Your task to perform on an android device: toggle show notifications on the lock screen Image 0: 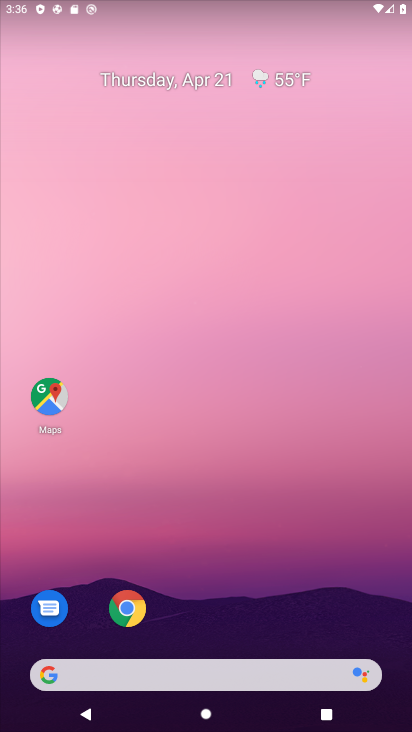
Step 0: drag from (222, 534) to (229, 155)
Your task to perform on an android device: toggle show notifications on the lock screen Image 1: 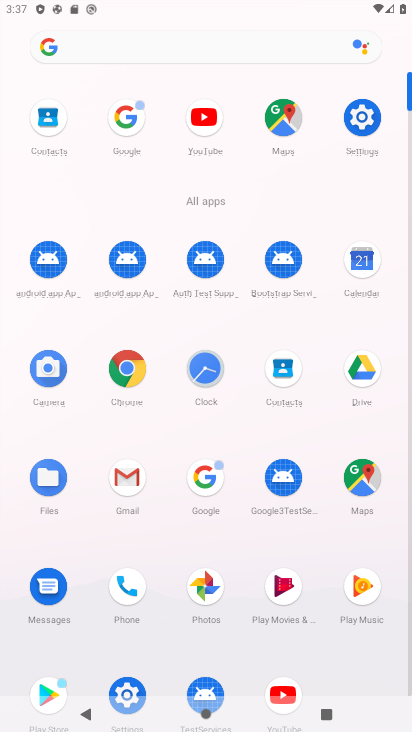
Step 1: click (363, 126)
Your task to perform on an android device: toggle show notifications on the lock screen Image 2: 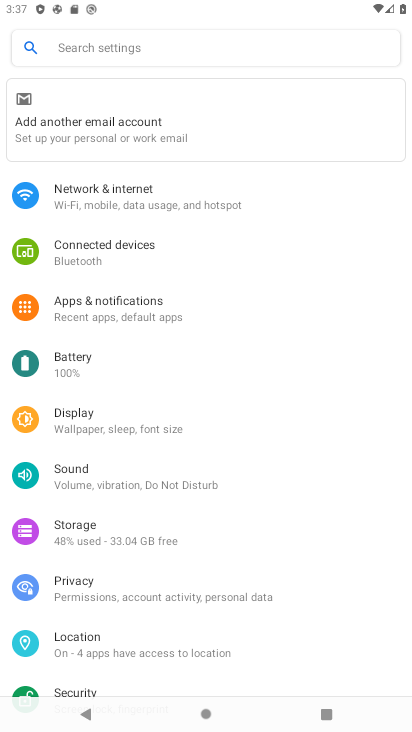
Step 2: click (177, 313)
Your task to perform on an android device: toggle show notifications on the lock screen Image 3: 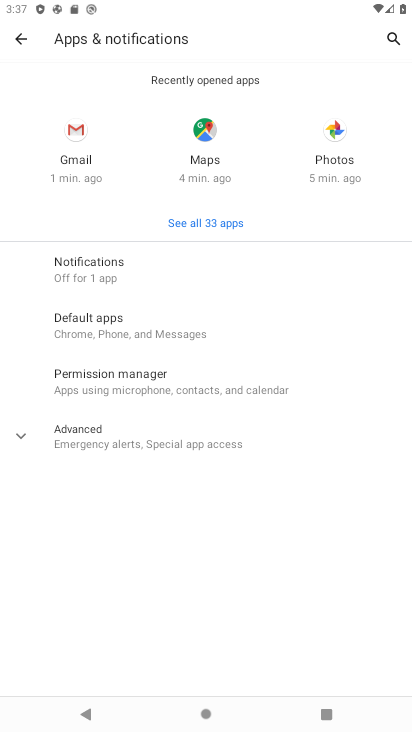
Step 3: click (165, 287)
Your task to perform on an android device: toggle show notifications on the lock screen Image 4: 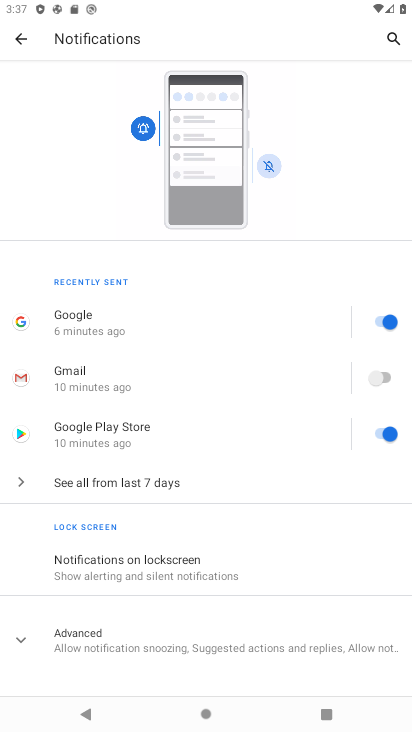
Step 4: click (252, 559)
Your task to perform on an android device: toggle show notifications on the lock screen Image 5: 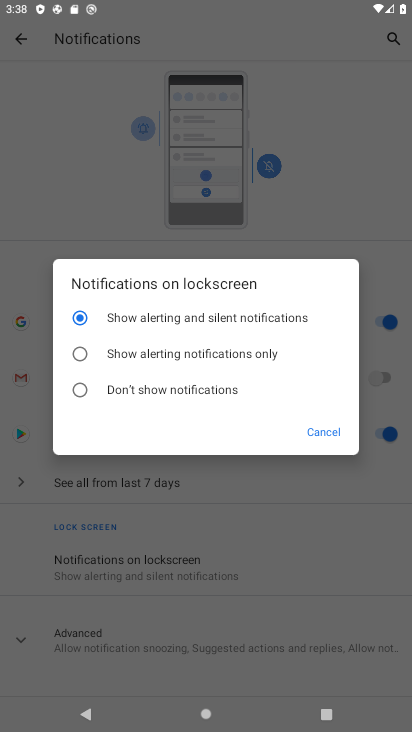
Step 5: click (97, 398)
Your task to perform on an android device: toggle show notifications on the lock screen Image 6: 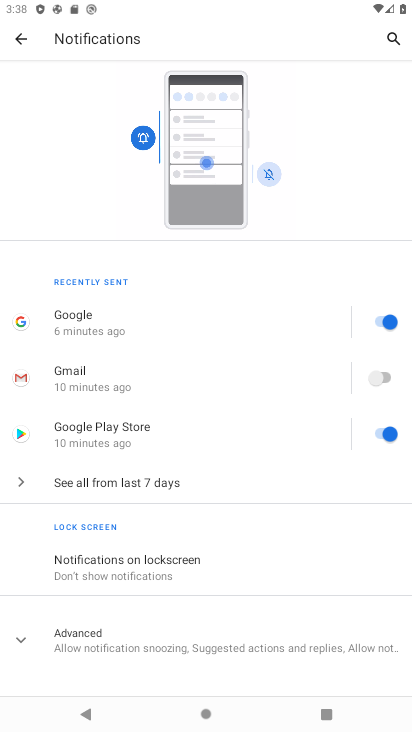
Step 6: task complete